Your task to perform on an android device: toggle location history Image 0: 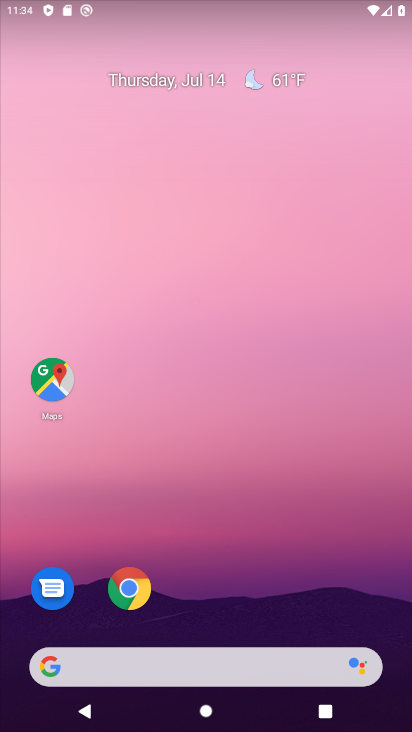
Step 0: drag from (221, 587) to (217, 232)
Your task to perform on an android device: toggle location history Image 1: 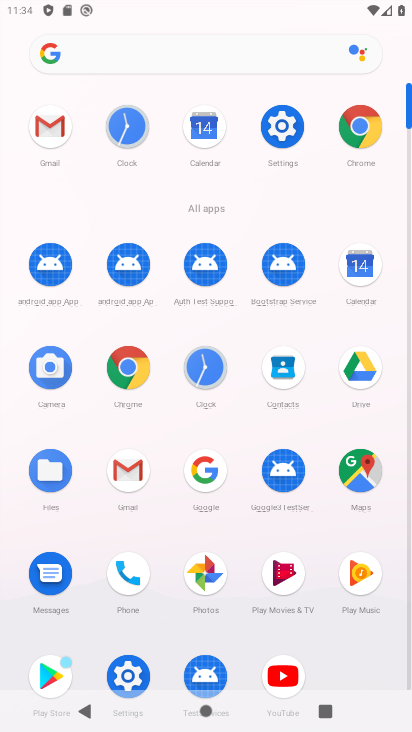
Step 1: click (130, 664)
Your task to perform on an android device: toggle location history Image 2: 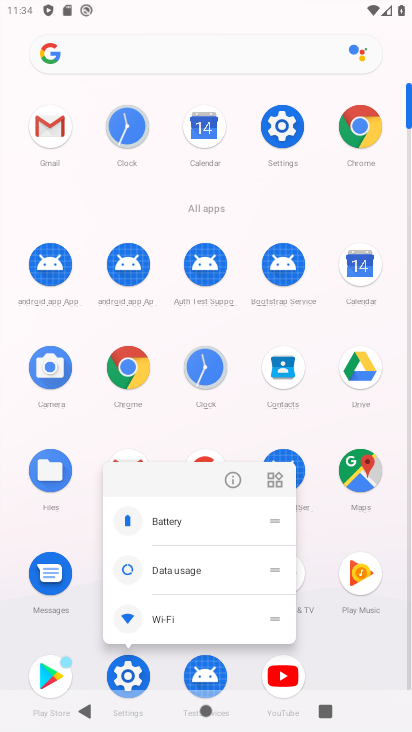
Step 2: click (130, 666)
Your task to perform on an android device: toggle location history Image 3: 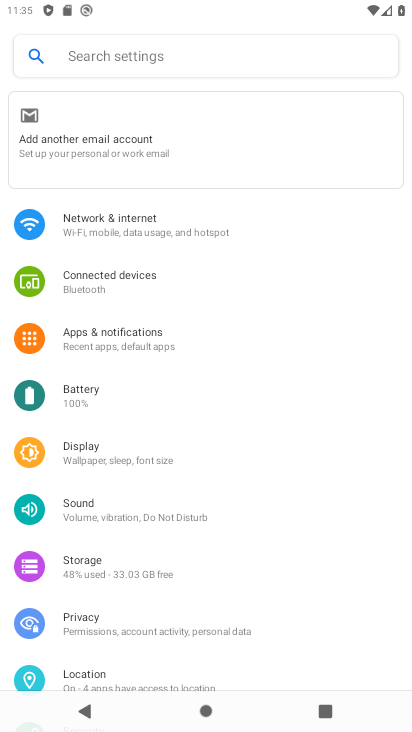
Step 3: click (93, 664)
Your task to perform on an android device: toggle location history Image 4: 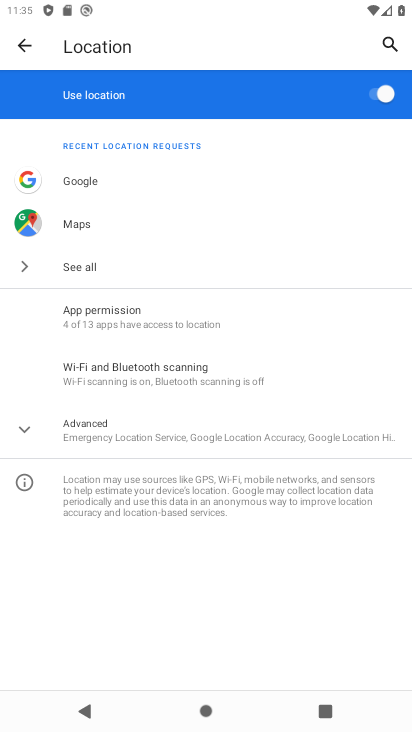
Step 4: click (134, 434)
Your task to perform on an android device: toggle location history Image 5: 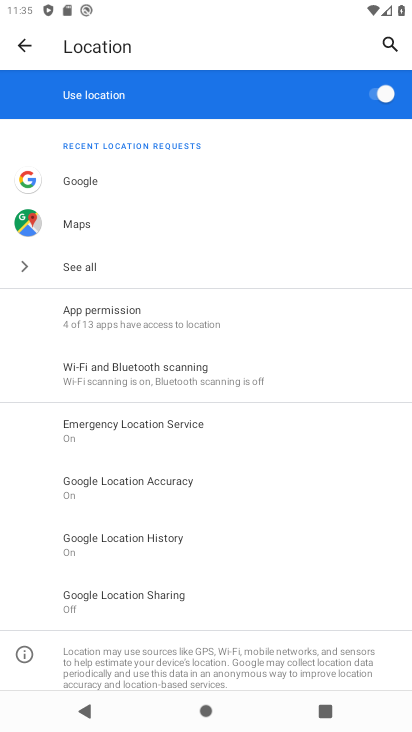
Step 5: click (169, 544)
Your task to perform on an android device: toggle location history Image 6: 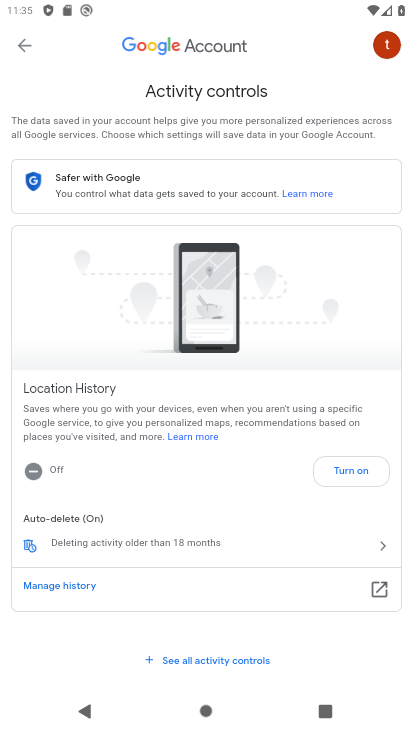
Step 6: click (347, 461)
Your task to perform on an android device: toggle location history Image 7: 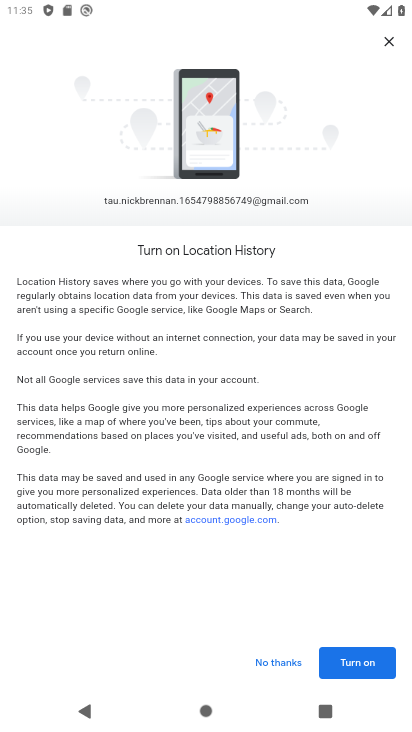
Step 7: drag from (191, 543) to (221, 178)
Your task to perform on an android device: toggle location history Image 8: 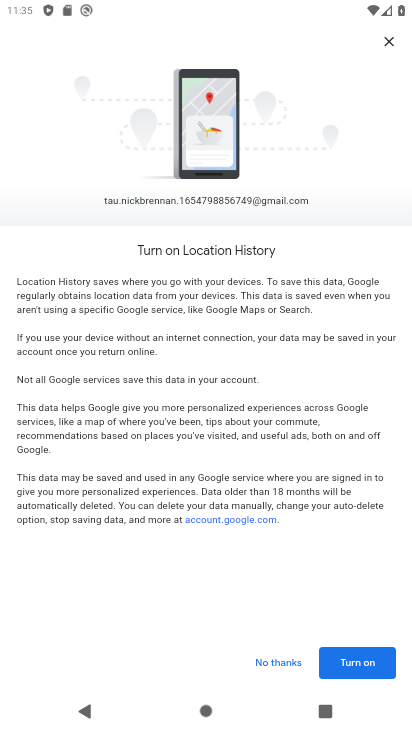
Step 8: click (360, 661)
Your task to perform on an android device: toggle location history Image 9: 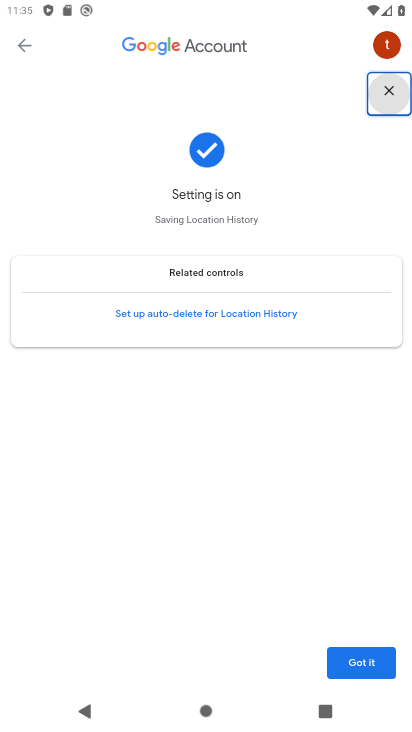
Step 9: click (365, 658)
Your task to perform on an android device: toggle location history Image 10: 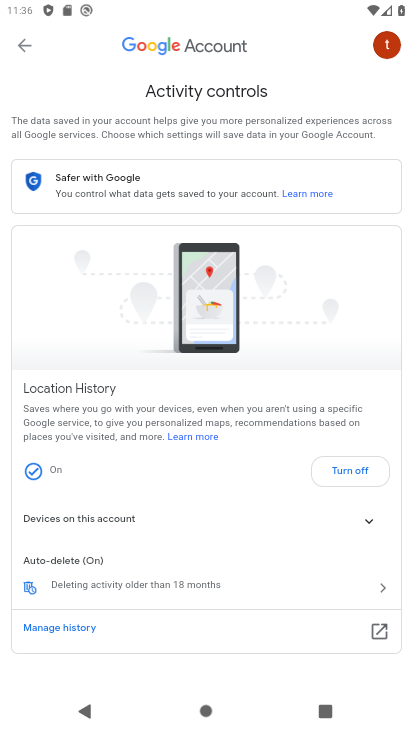
Step 10: task complete